Your task to perform on an android device: Open Youtube and go to "Your channel" Image 0: 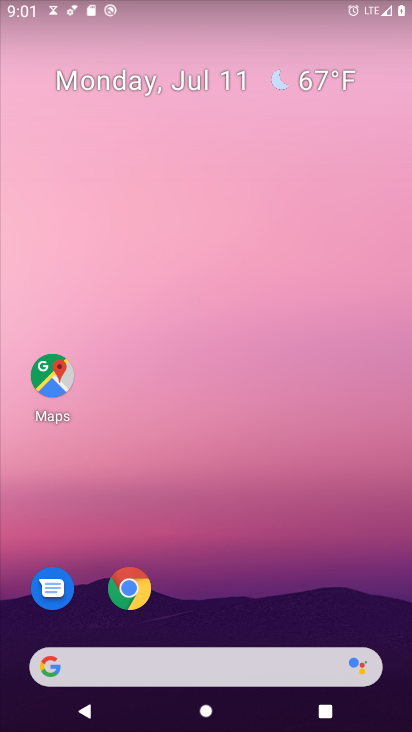
Step 0: drag from (208, 578) to (337, 16)
Your task to perform on an android device: Open Youtube and go to "Your channel" Image 1: 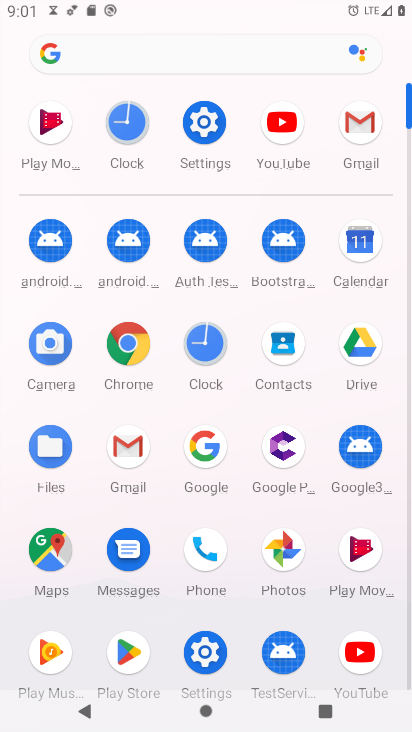
Step 1: click (282, 123)
Your task to perform on an android device: Open Youtube and go to "Your channel" Image 2: 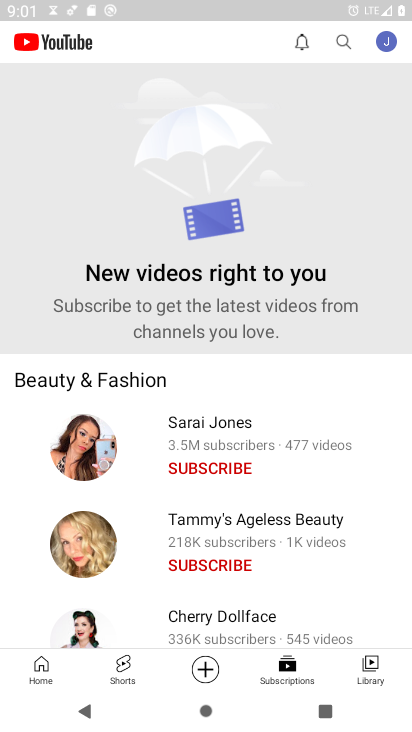
Step 2: click (32, 681)
Your task to perform on an android device: Open Youtube and go to "Your channel" Image 3: 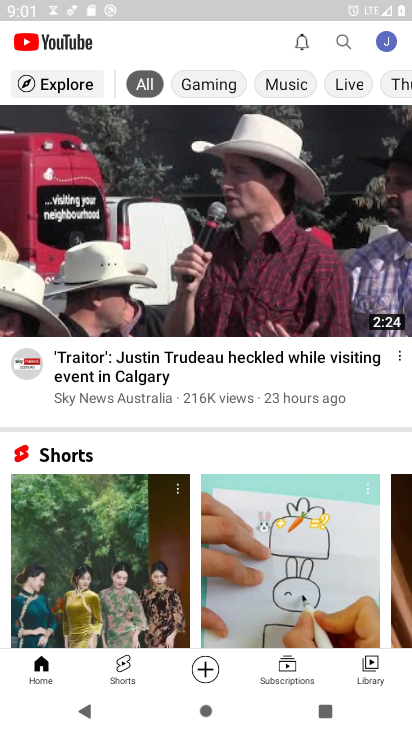
Step 3: click (384, 33)
Your task to perform on an android device: Open Youtube and go to "Your channel" Image 4: 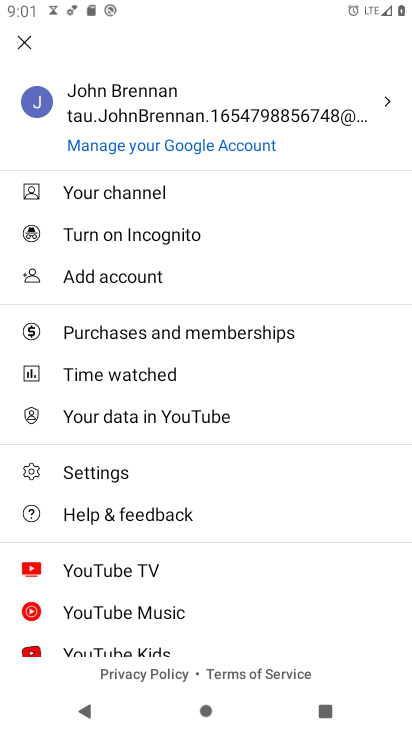
Step 4: click (105, 196)
Your task to perform on an android device: Open Youtube and go to "Your channel" Image 5: 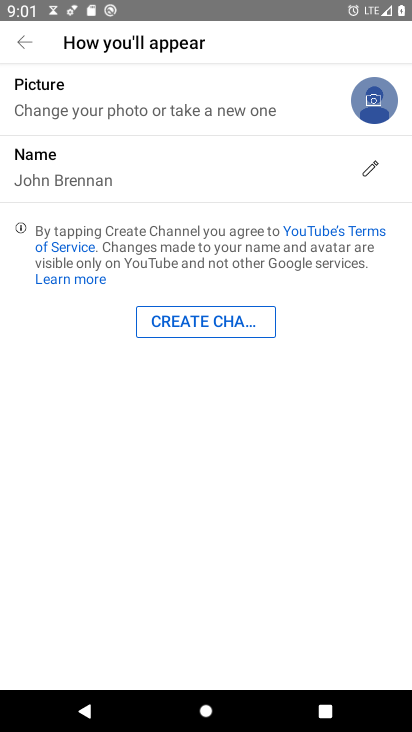
Step 5: task complete